Your task to perform on an android device: Open the map Image 0: 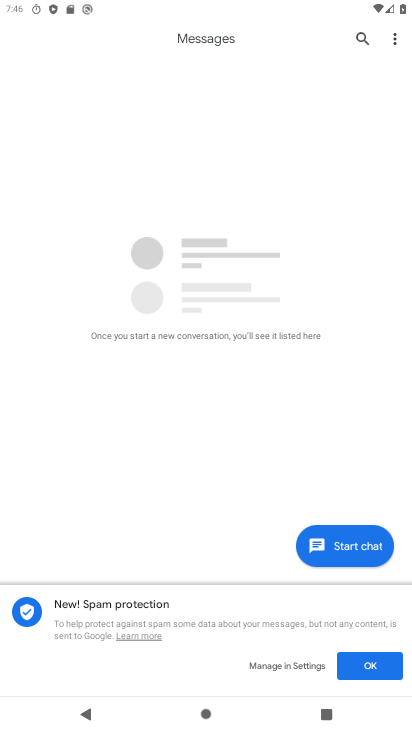
Step 0: press home button
Your task to perform on an android device: Open the map Image 1: 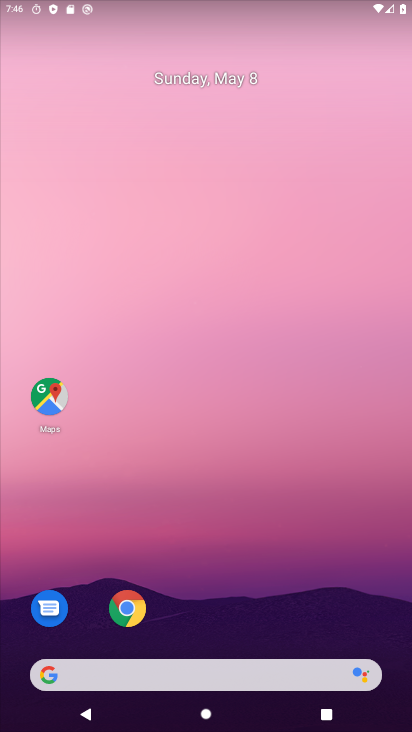
Step 1: click (49, 405)
Your task to perform on an android device: Open the map Image 2: 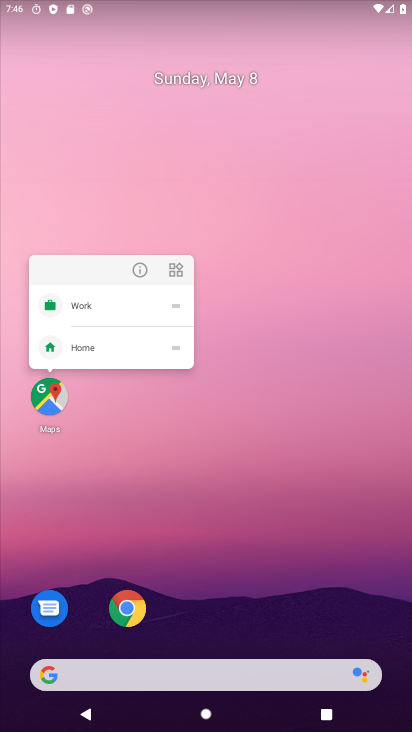
Step 2: click (49, 398)
Your task to perform on an android device: Open the map Image 3: 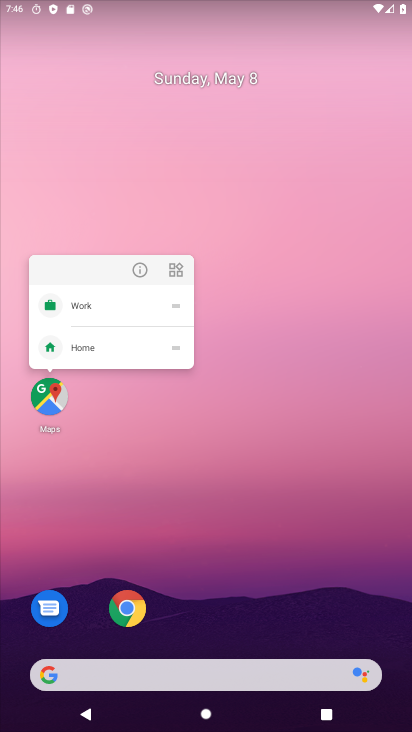
Step 3: click (49, 429)
Your task to perform on an android device: Open the map Image 4: 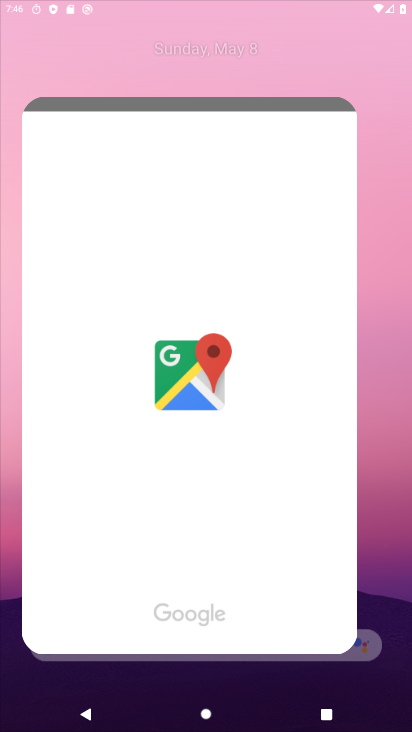
Step 4: click (50, 414)
Your task to perform on an android device: Open the map Image 5: 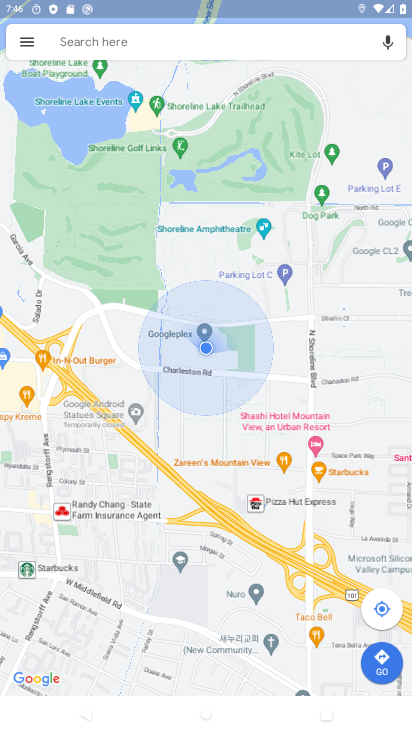
Step 5: task complete